Your task to perform on an android device: set default search engine in the chrome app Image 0: 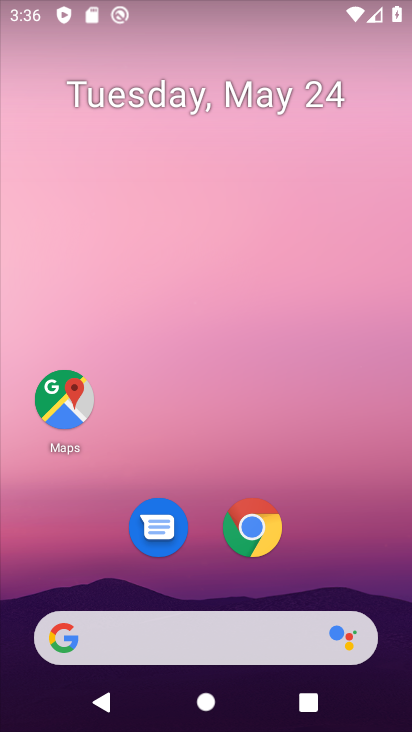
Step 0: click (258, 525)
Your task to perform on an android device: set default search engine in the chrome app Image 1: 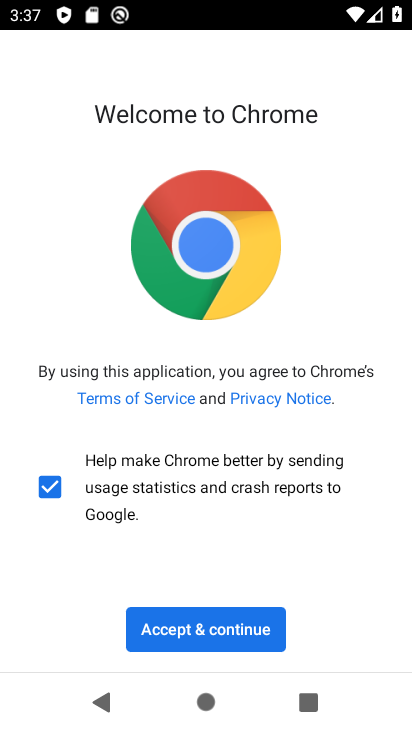
Step 1: click (193, 647)
Your task to perform on an android device: set default search engine in the chrome app Image 2: 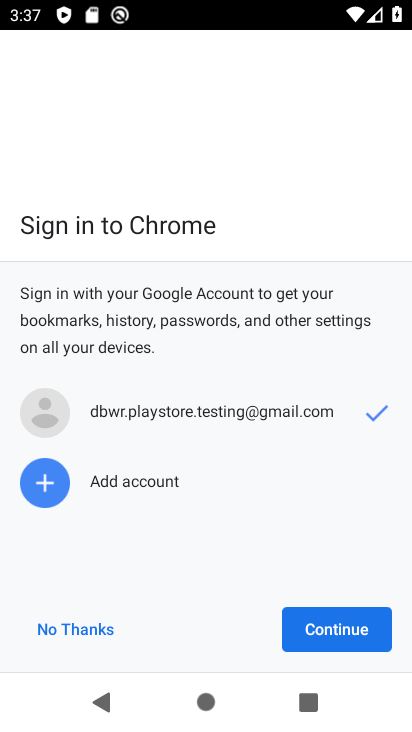
Step 2: click (147, 634)
Your task to perform on an android device: set default search engine in the chrome app Image 3: 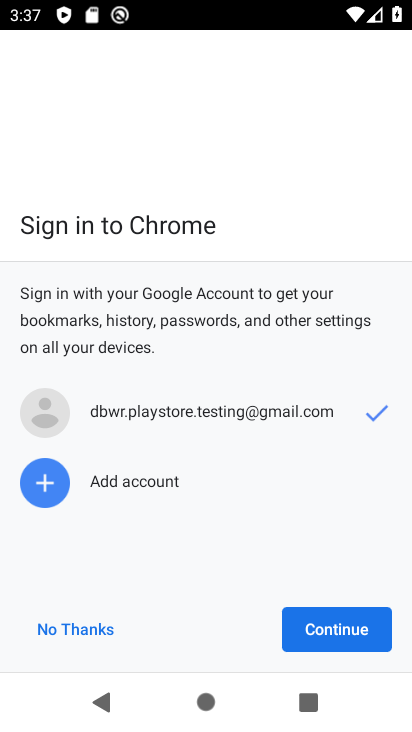
Step 3: click (168, 658)
Your task to perform on an android device: set default search engine in the chrome app Image 4: 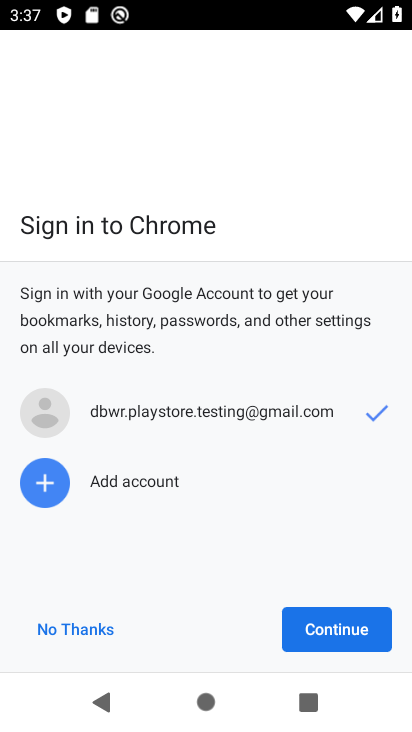
Step 4: click (189, 621)
Your task to perform on an android device: set default search engine in the chrome app Image 5: 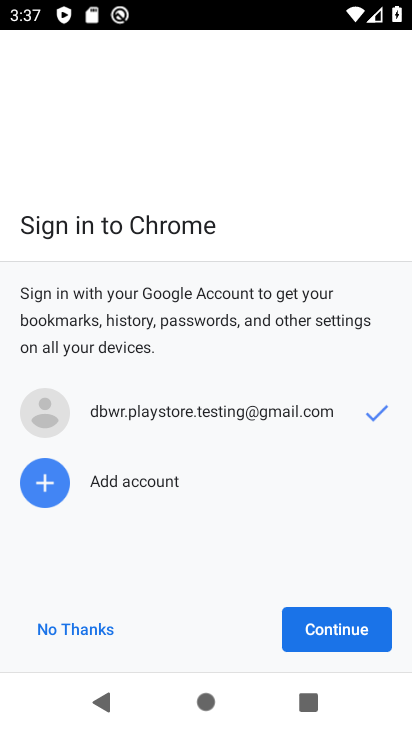
Step 5: click (342, 626)
Your task to perform on an android device: set default search engine in the chrome app Image 6: 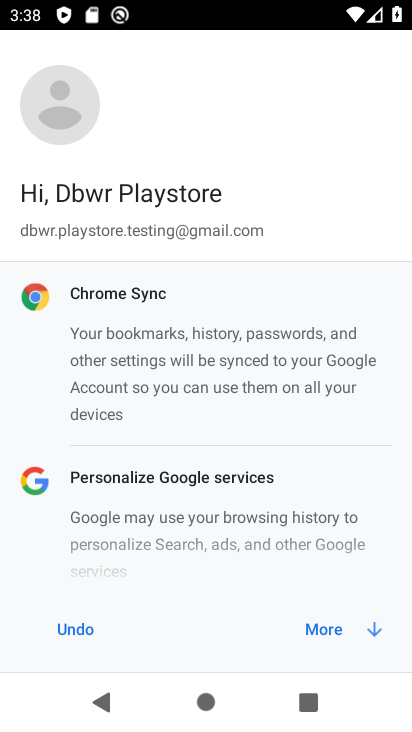
Step 6: click (345, 621)
Your task to perform on an android device: set default search engine in the chrome app Image 7: 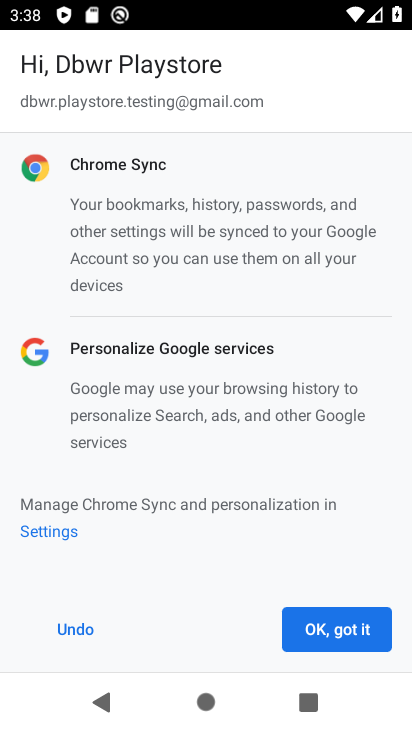
Step 7: click (353, 632)
Your task to perform on an android device: set default search engine in the chrome app Image 8: 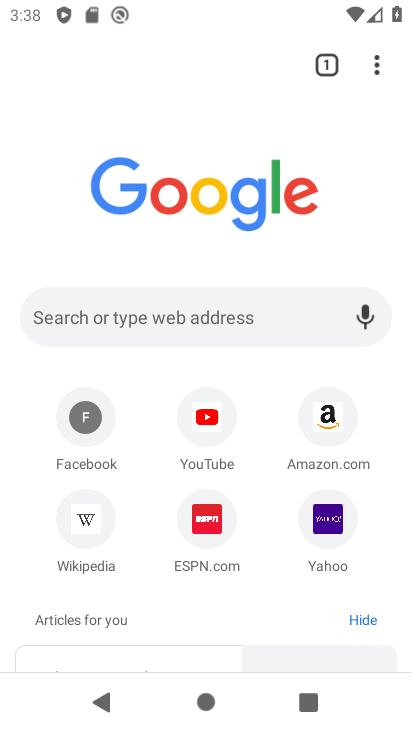
Step 8: click (387, 55)
Your task to perform on an android device: set default search engine in the chrome app Image 9: 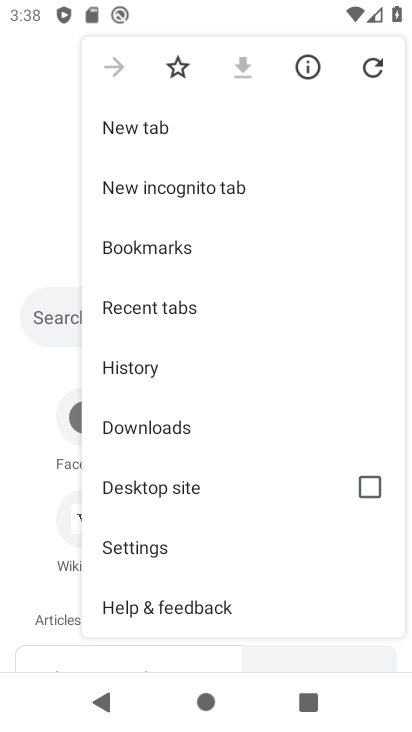
Step 9: click (379, 66)
Your task to perform on an android device: set default search engine in the chrome app Image 10: 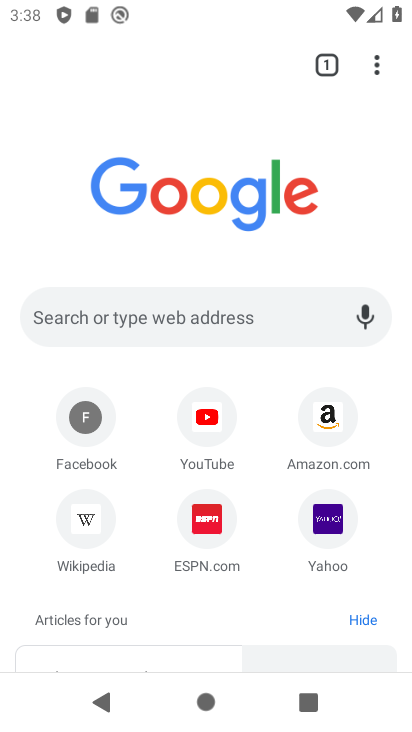
Step 10: click (390, 64)
Your task to perform on an android device: set default search engine in the chrome app Image 11: 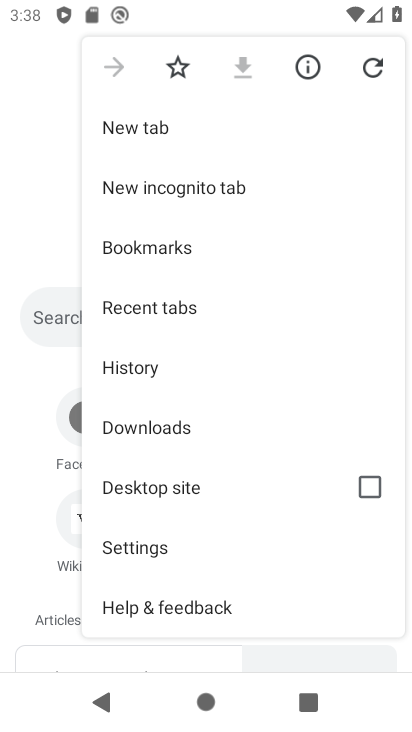
Step 11: click (123, 533)
Your task to perform on an android device: set default search engine in the chrome app Image 12: 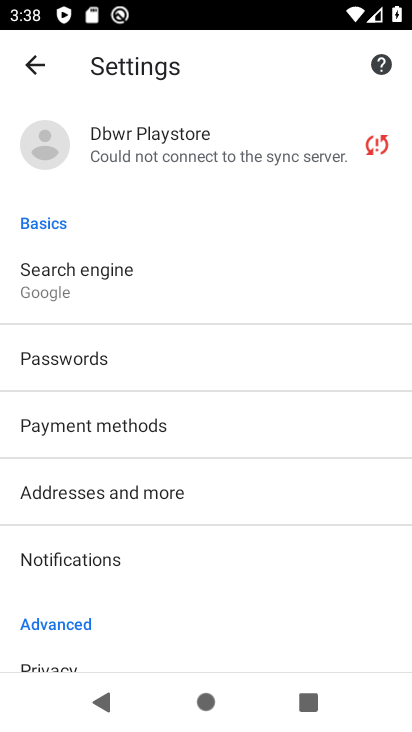
Step 12: click (86, 281)
Your task to perform on an android device: set default search engine in the chrome app Image 13: 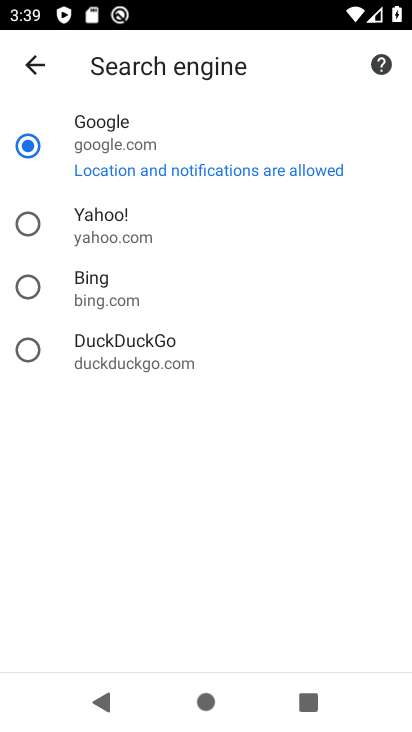
Step 13: click (66, 288)
Your task to perform on an android device: set default search engine in the chrome app Image 14: 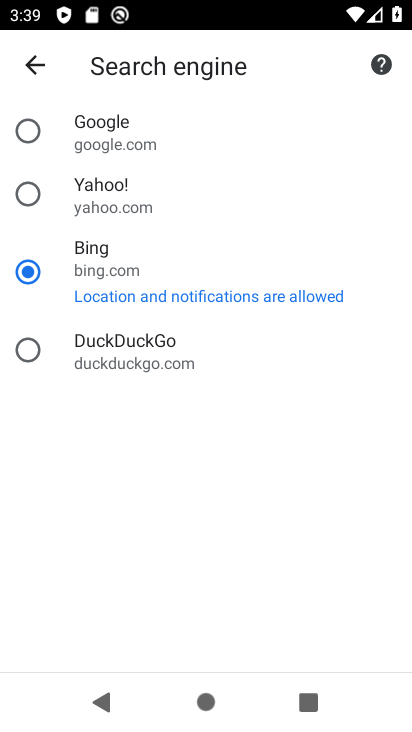
Step 14: task complete